Your task to perform on an android device: turn off smart reply in the gmail app Image 0: 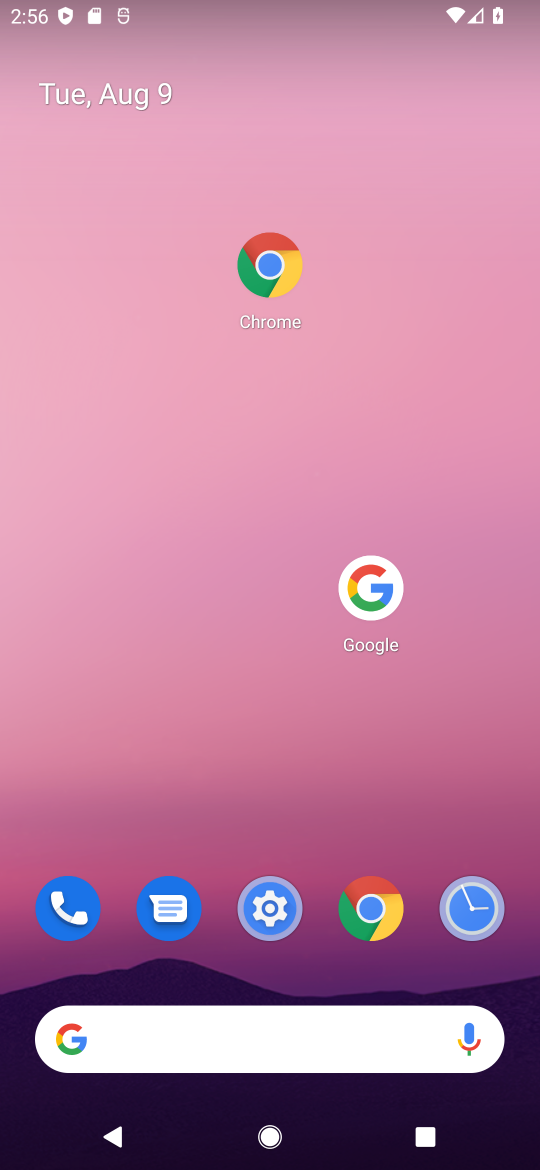
Step 0: drag from (304, 380) to (300, 326)
Your task to perform on an android device: turn off smart reply in the gmail app Image 1: 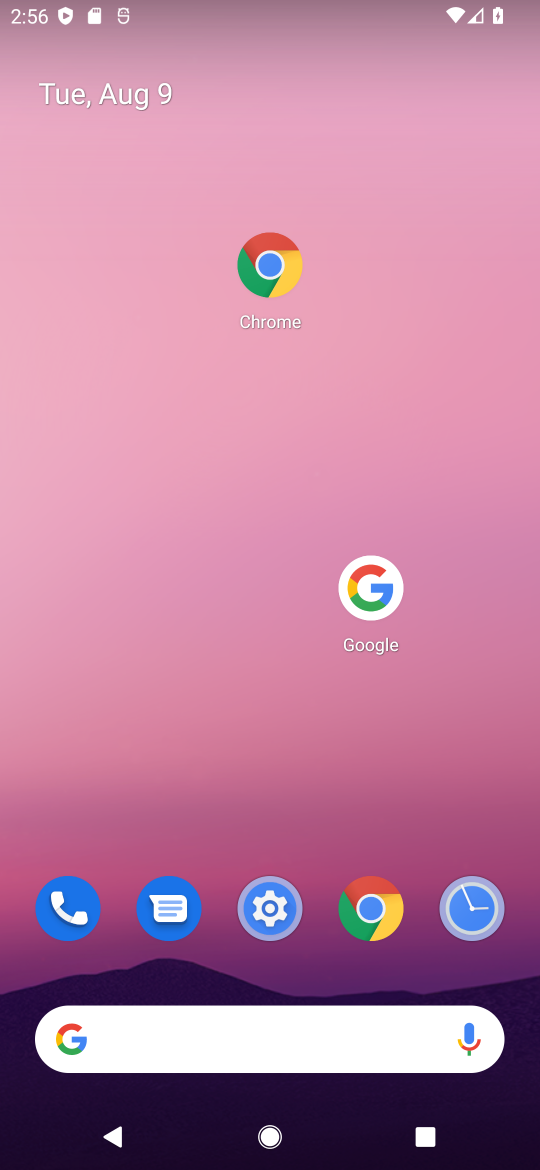
Step 1: click (310, 188)
Your task to perform on an android device: turn off smart reply in the gmail app Image 2: 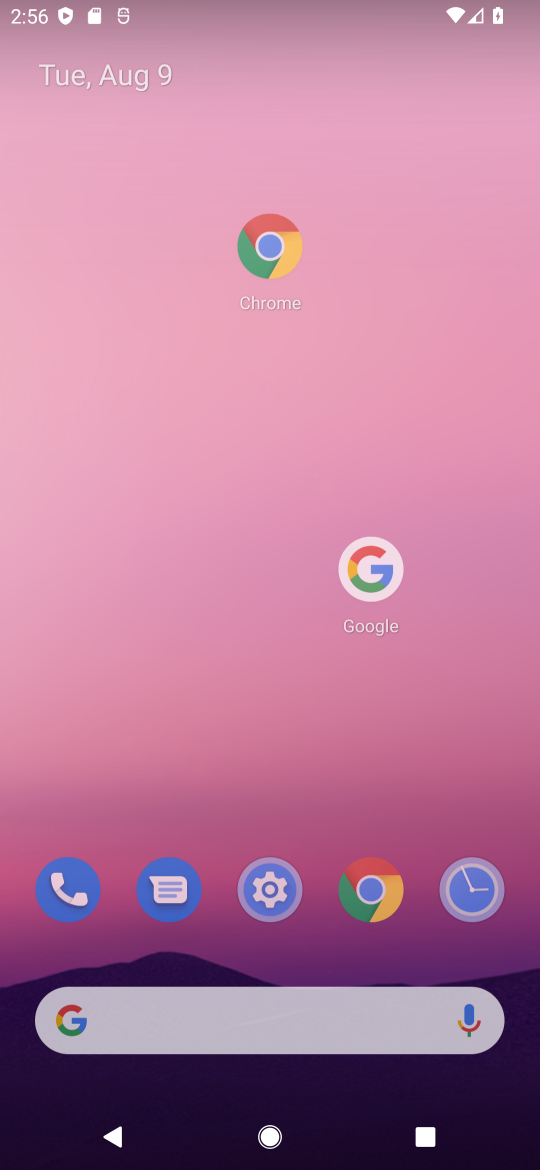
Step 2: drag from (303, 666) to (329, 449)
Your task to perform on an android device: turn off smart reply in the gmail app Image 3: 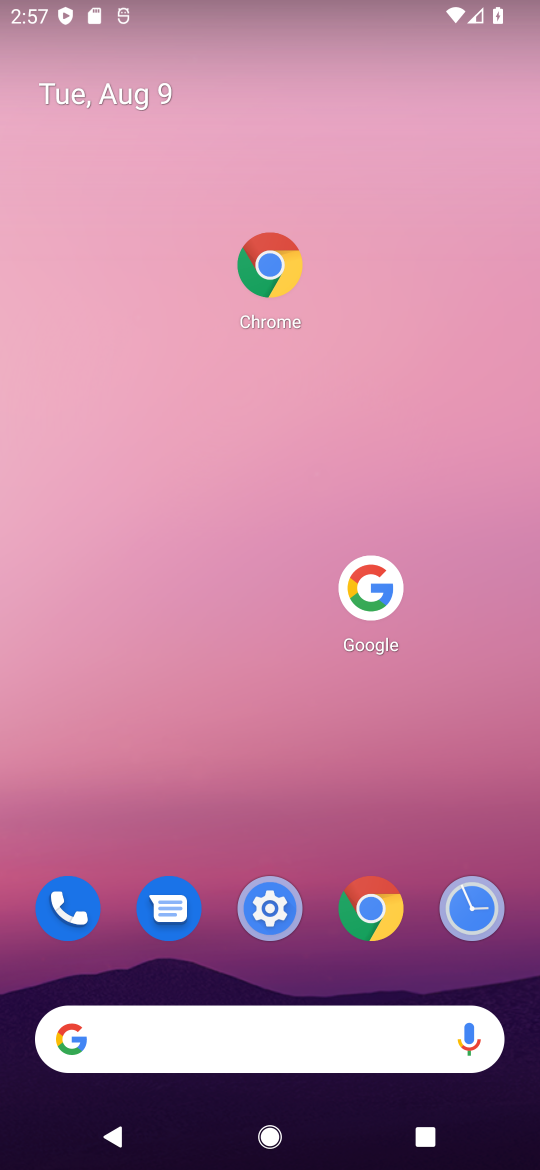
Step 3: click (310, 470)
Your task to perform on an android device: turn off smart reply in the gmail app Image 4: 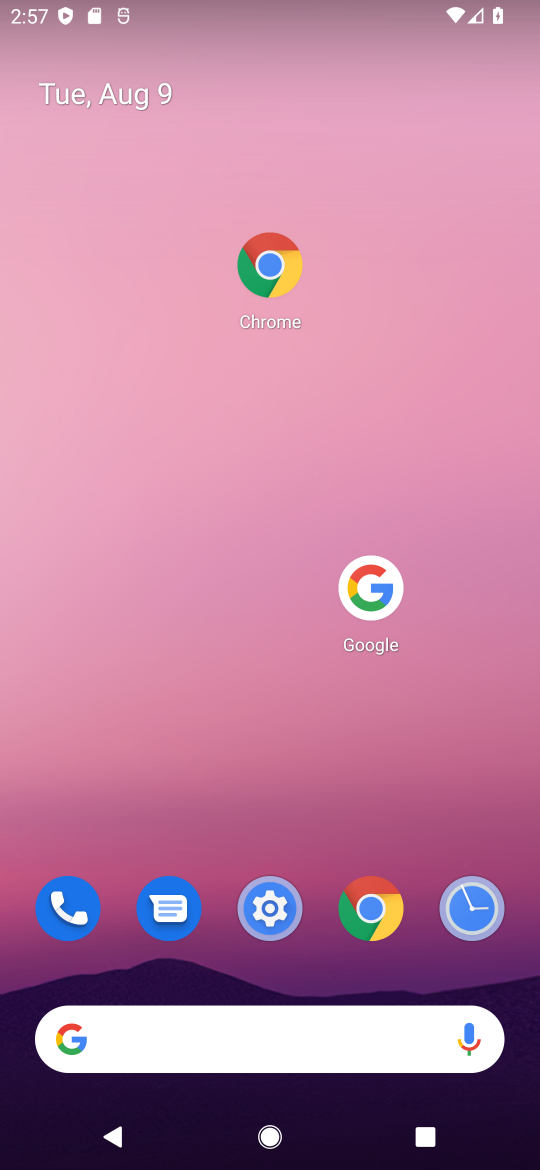
Step 4: drag from (333, 1034) to (324, 250)
Your task to perform on an android device: turn off smart reply in the gmail app Image 5: 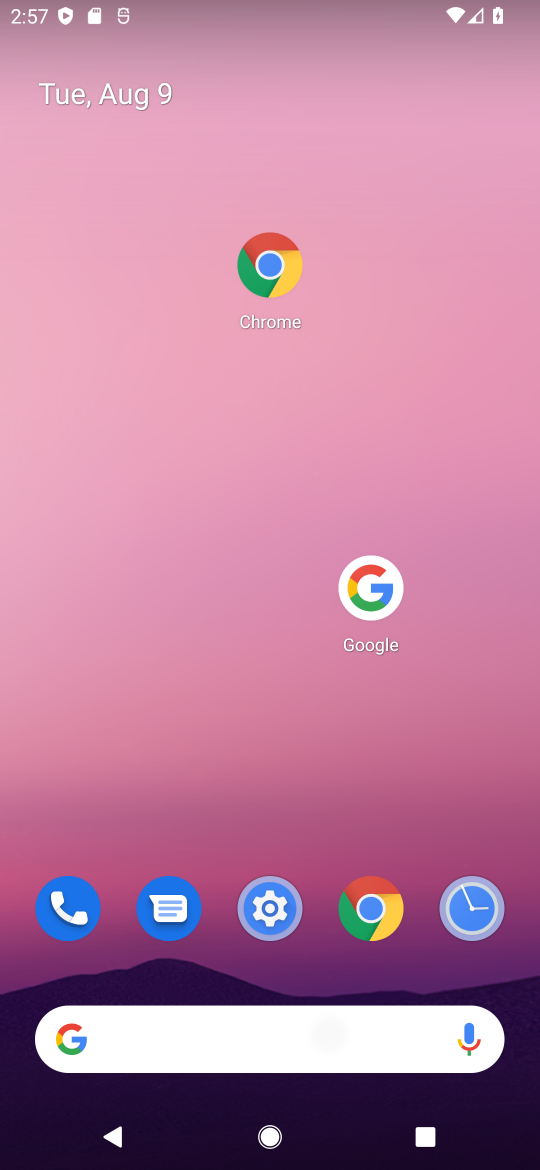
Step 5: drag from (351, 213) to (343, 374)
Your task to perform on an android device: turn off smart reply in the gmail app Image 6: 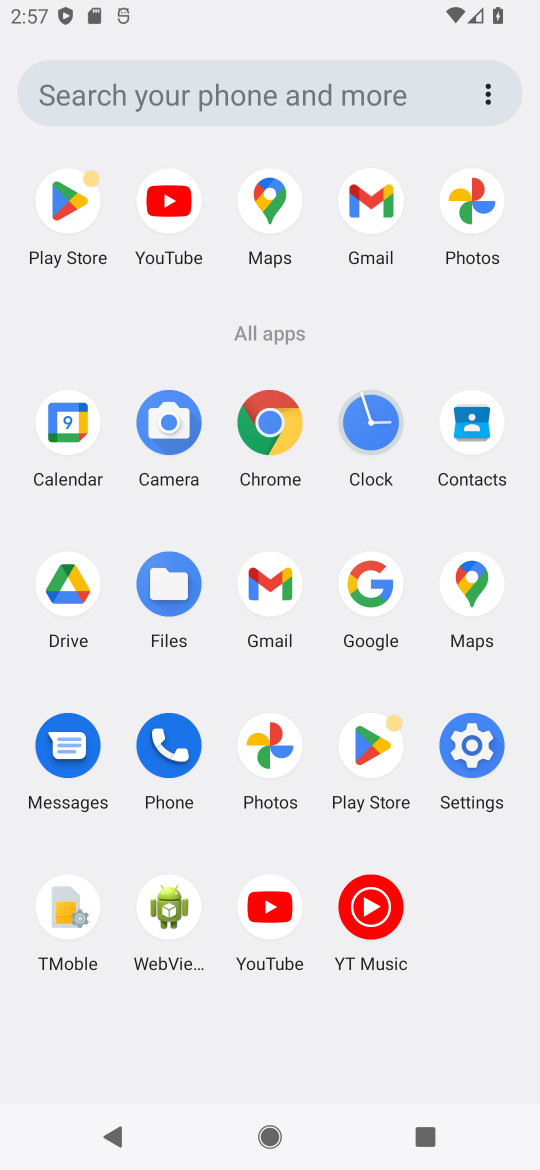
Step 6: drag from (287, 951) to (209, 413)
Your task to perform on an android device: turn off smart reply in the gmail app Image 7: 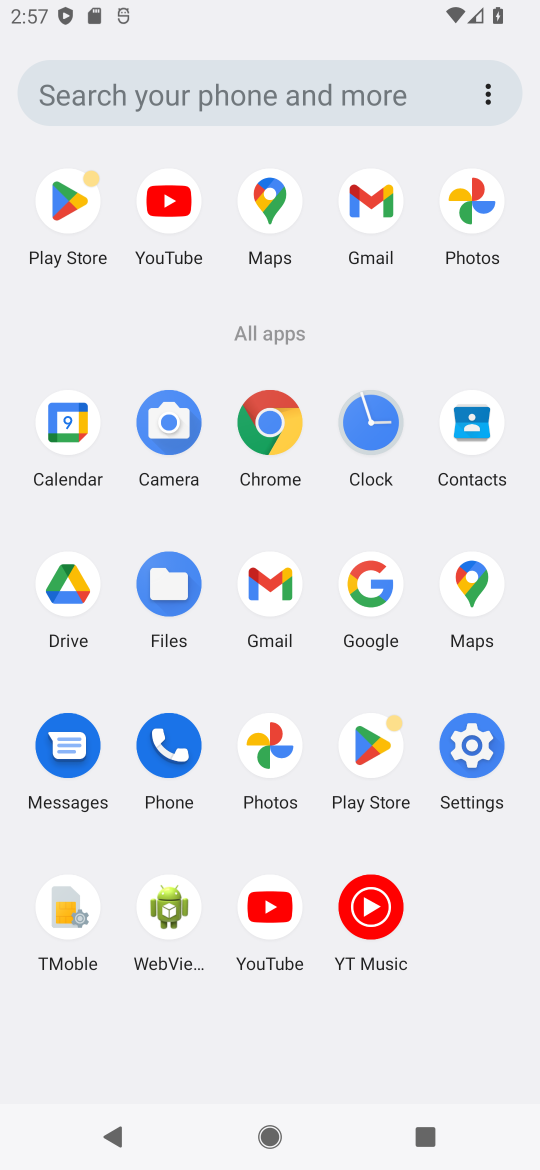
Step 7: click (280, 593)
Your task to perform on an android device: turn off smart reply in the gmail app Image 8: 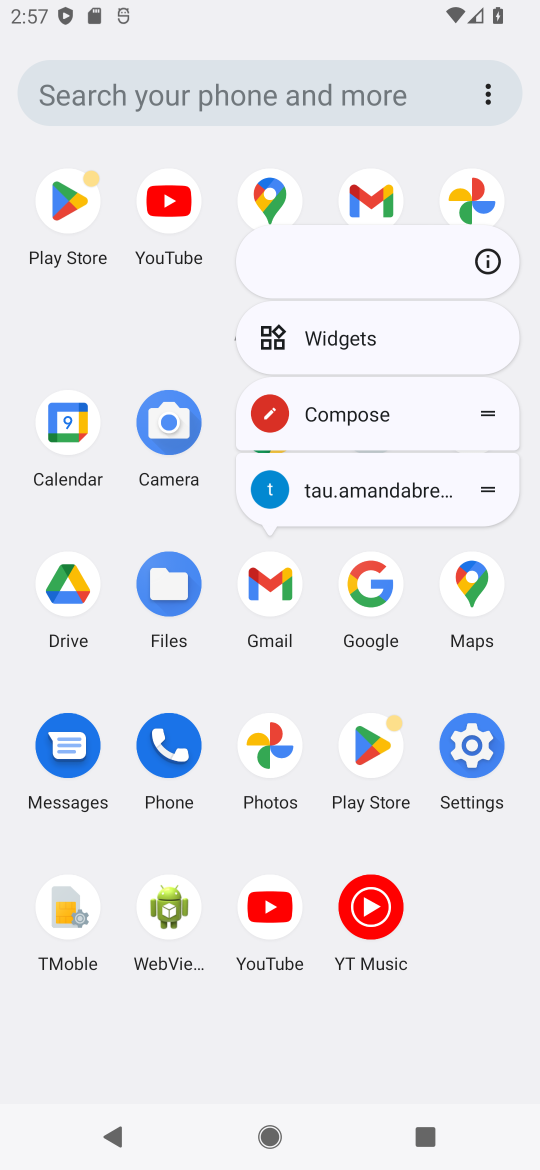
Step 8: click (261, 586)
Your task to perform on an android device: turn off smart reply in the gmail app Image 9: 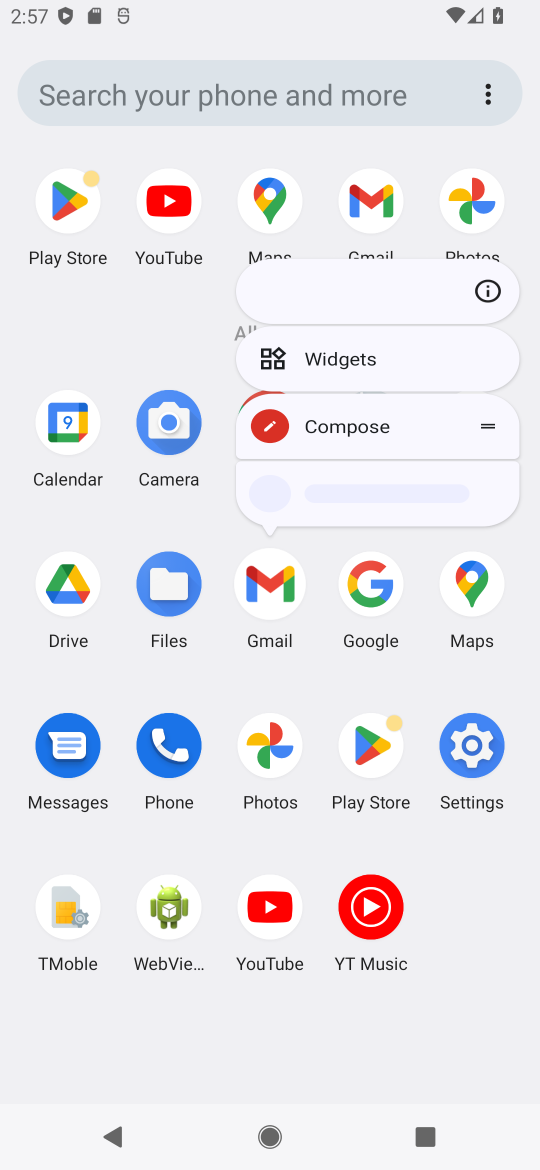
Step 9: click (261, 586)
Your task to perform on an android device: turn off smart reply in the gmail app Image 10: 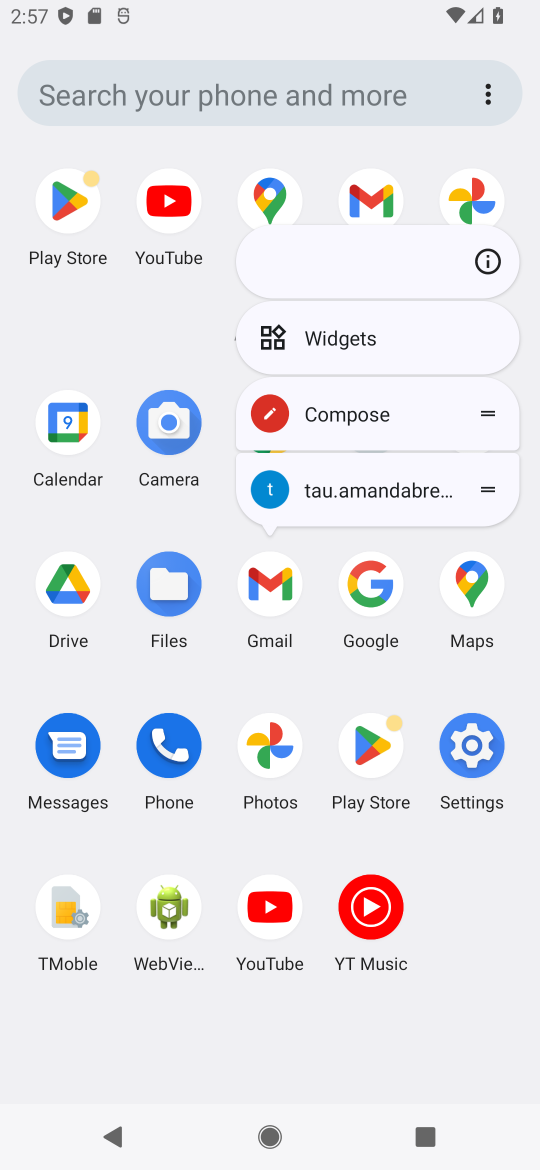
Step 10: click (342, 494)
Your task to perform on an android device: turn off smart reply in the gmail app Image 11: 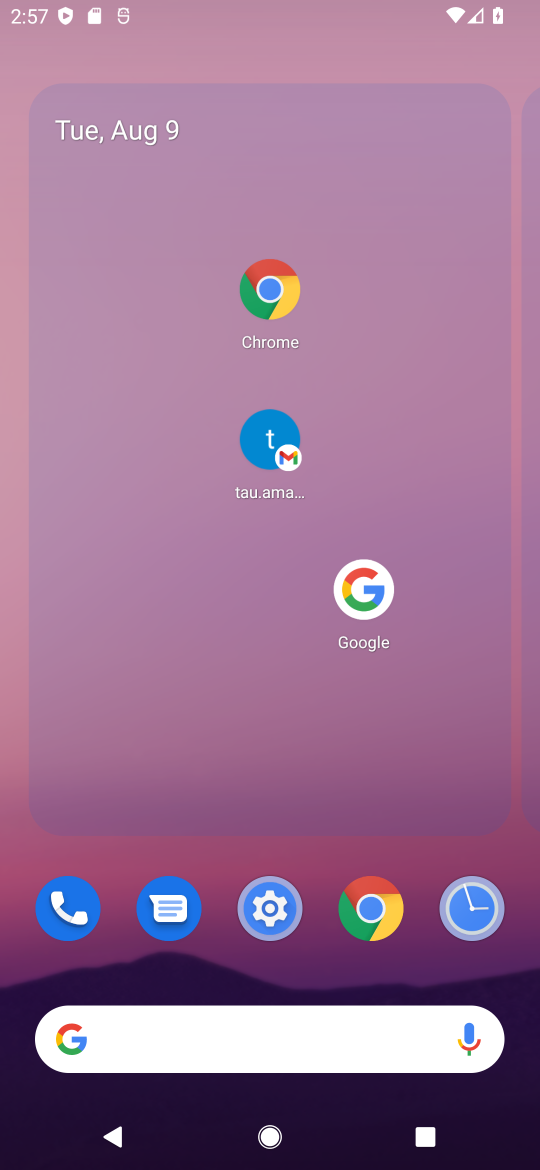
Step 11: click (447, 61)
Your task to perform on an android device: turn off smart reply in the gmail app Image 12: 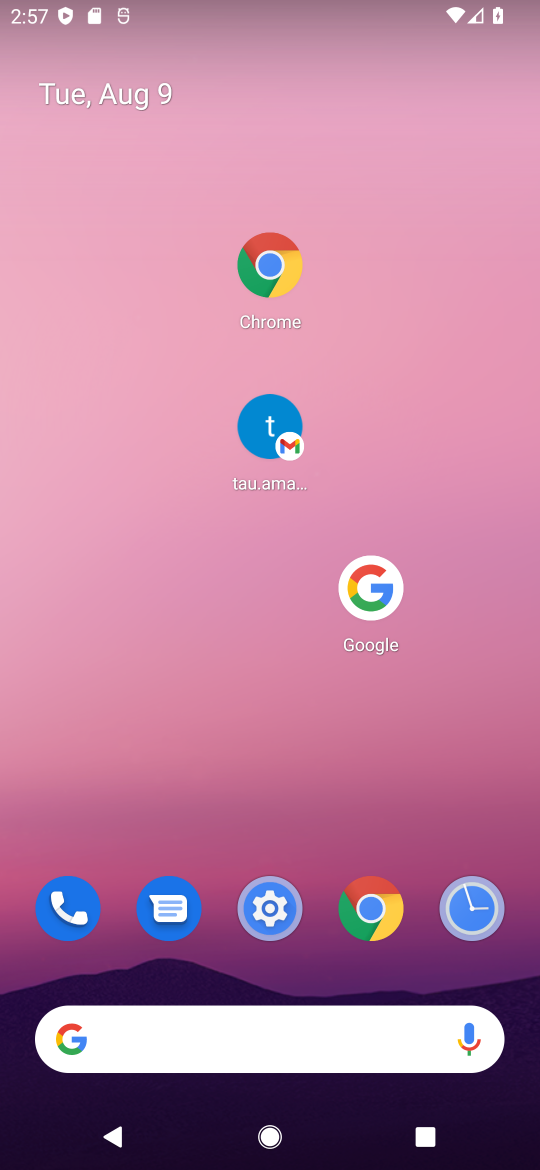
Step 12: drag from (394, 929) to (298, 190)
Your task to perform on an android device: turn off smart reply in the gmail app Image 13: 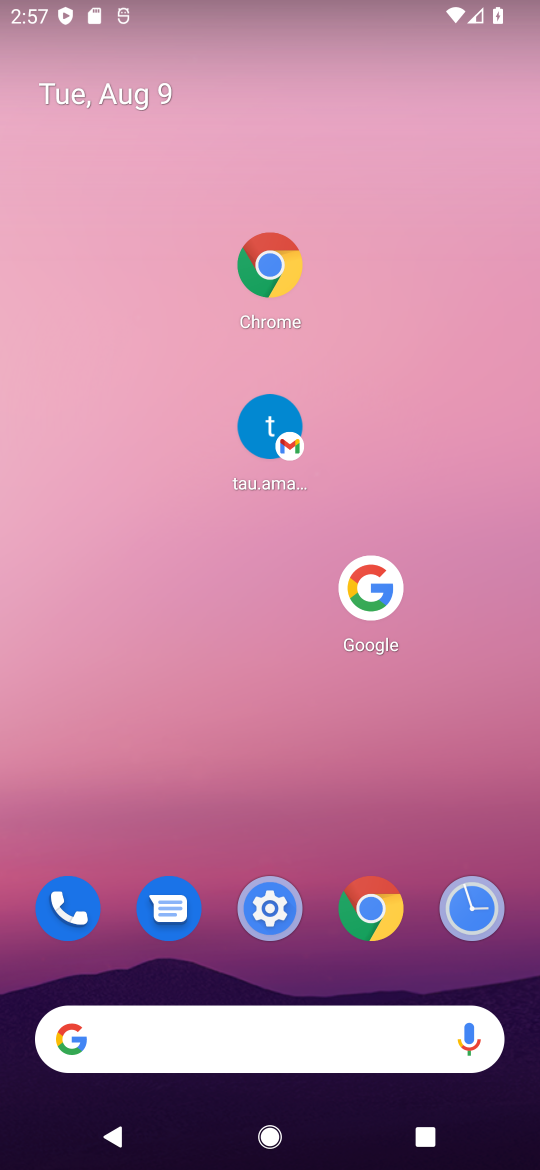
Step 13: click (250, 377)
Your task to perform on an android device: turn off smart reply in the gmail app Image 14: 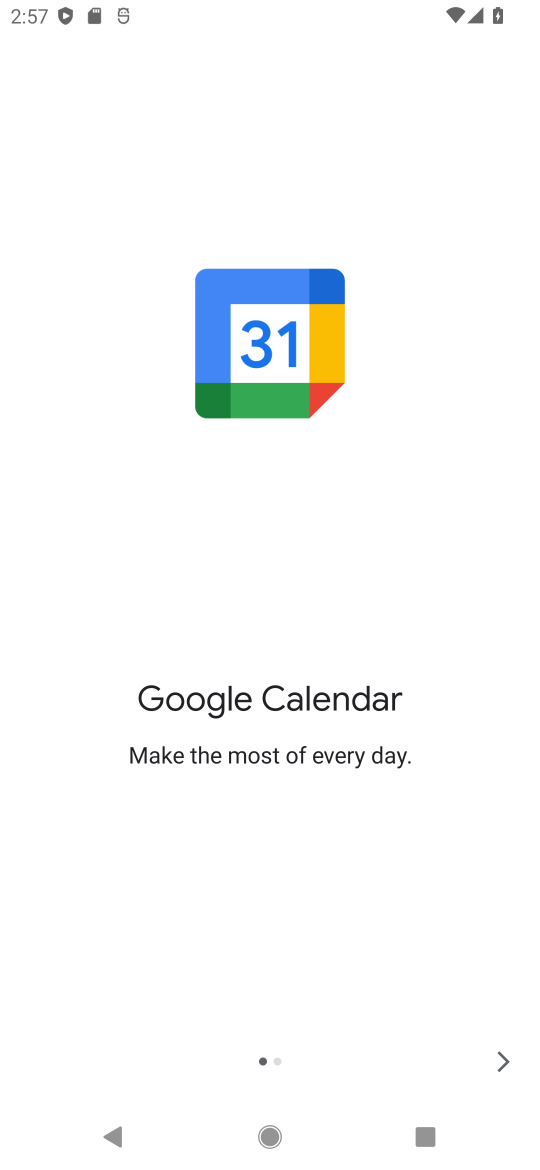
Step 14: press back button
Your task to perform on an android device: turn off smart reply in the gmail app Image 15: 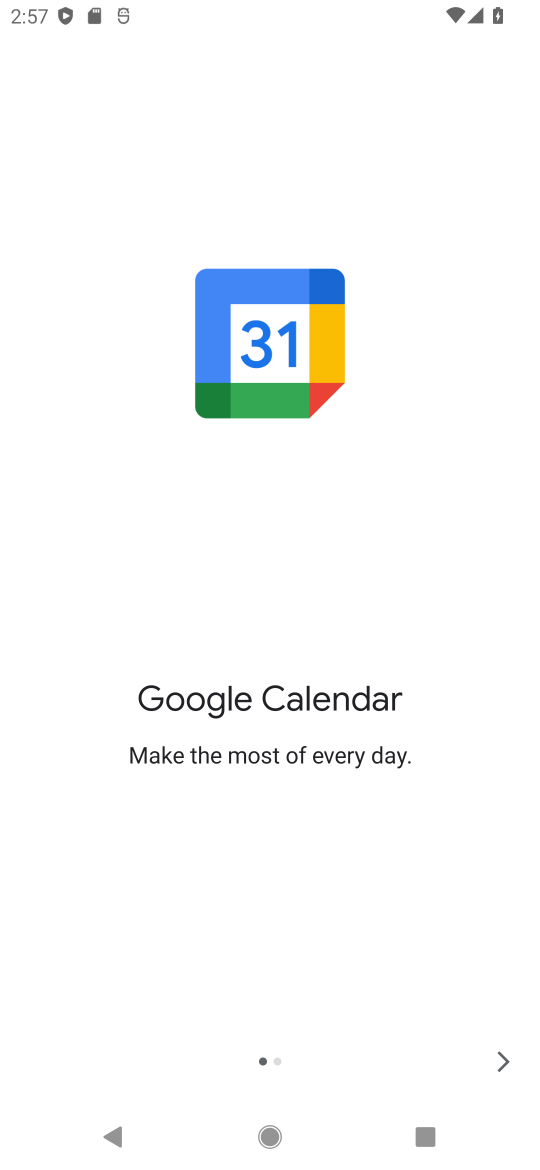
Step 15: press back button
Your task to perform on an android device: turn off smart reply in the gmail app Image 16: 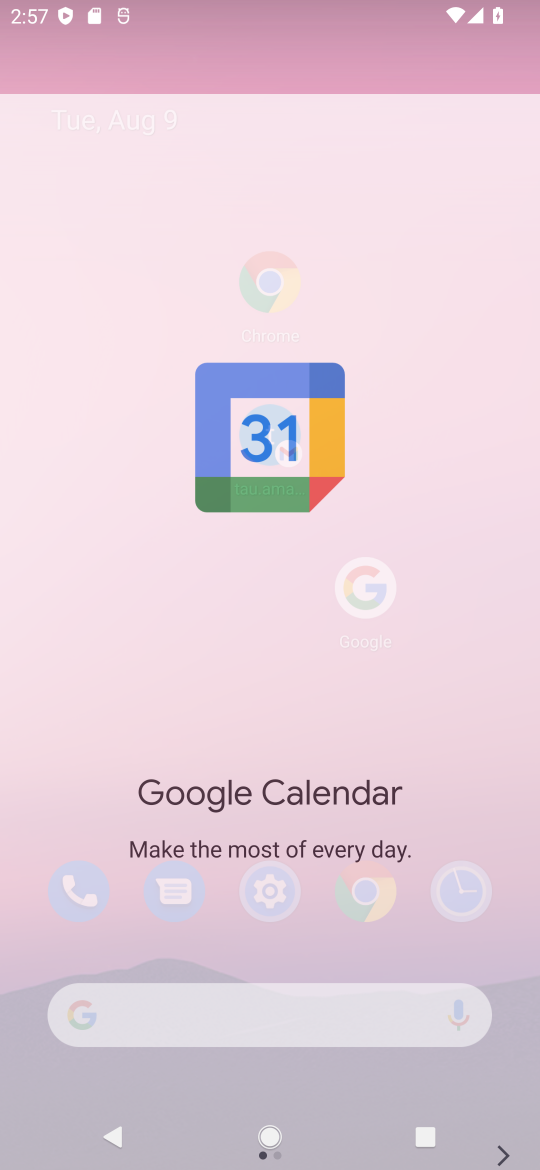
Step 16: press back button
Your task to perform on an android device: turn off smart reply in the gmail app Image 17: 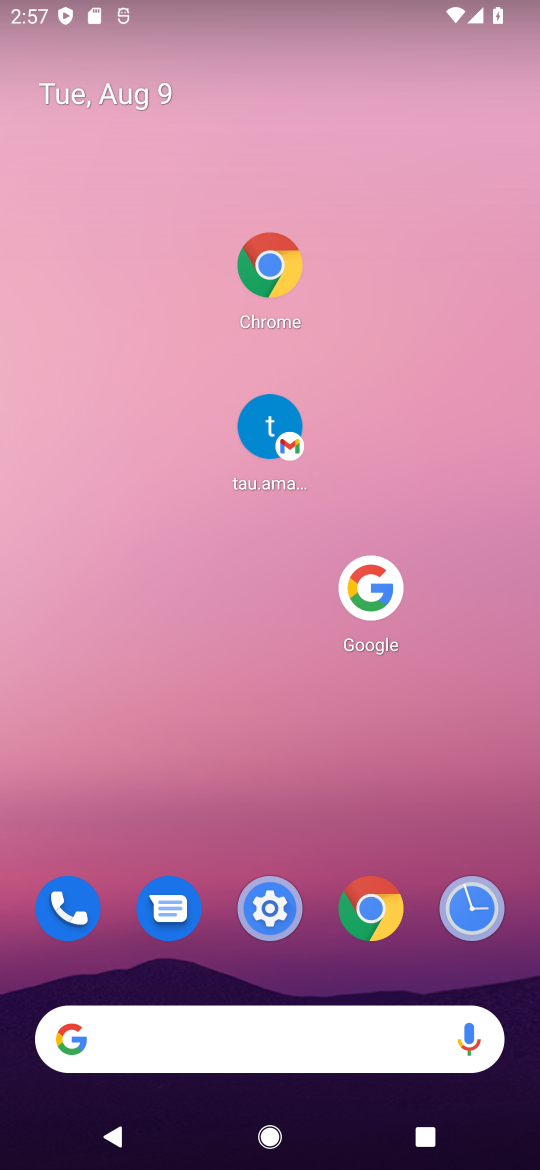
Step 17: press back button
Your task to perform on an android device: turn off smart reply in the gmail app Image 18: 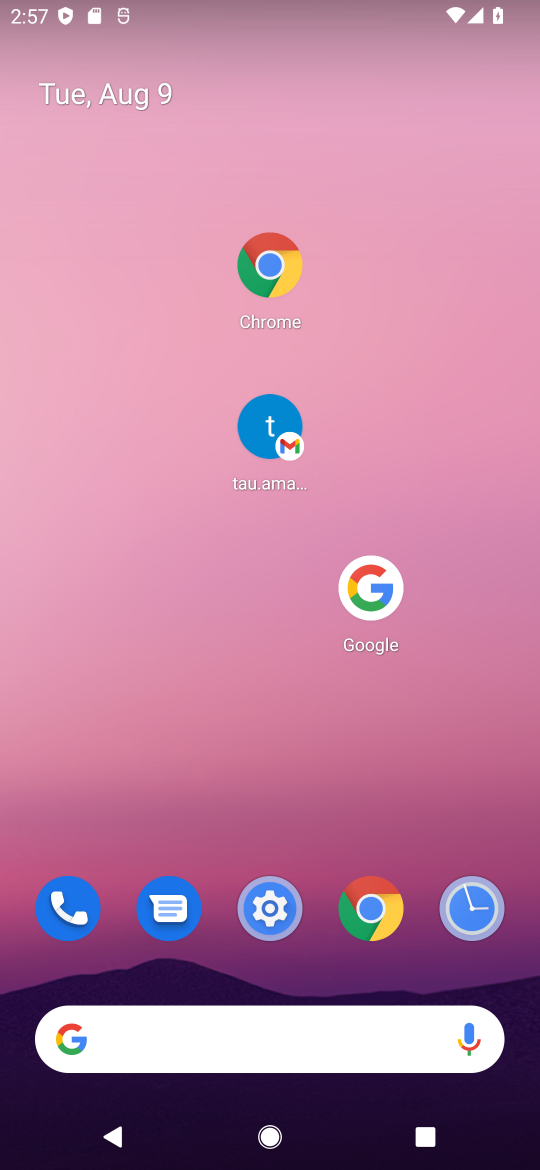
Step 18: press back button
Your task to perform on an android device: turn off smart reply in the gmail app Image 19: 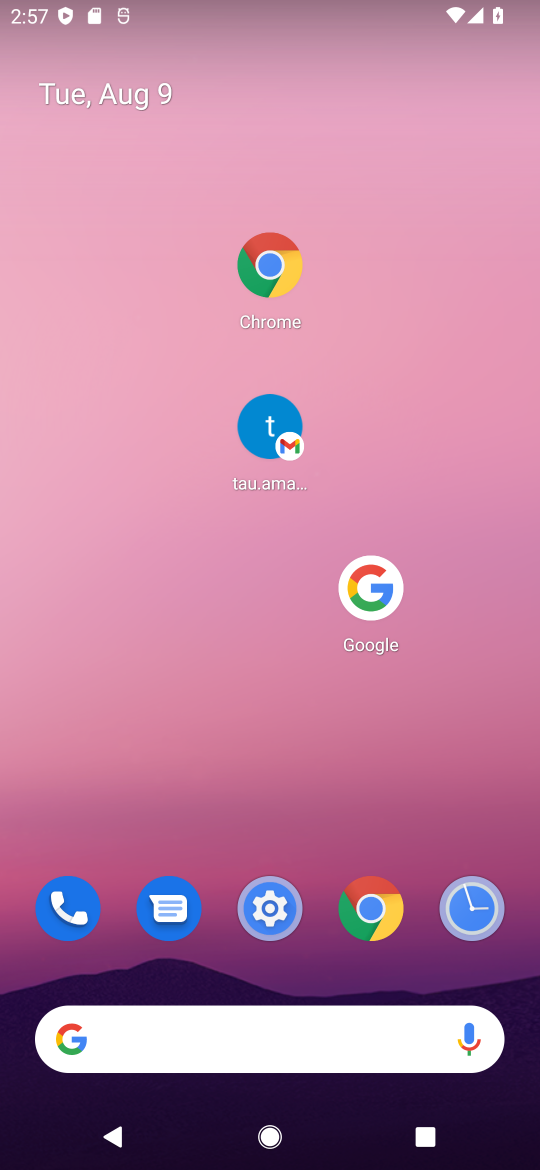
Step 19: drag from (332, 1084) to (386, 406)
Your task to perform on an android device: turn off smart reply in the gmail app Image 20: 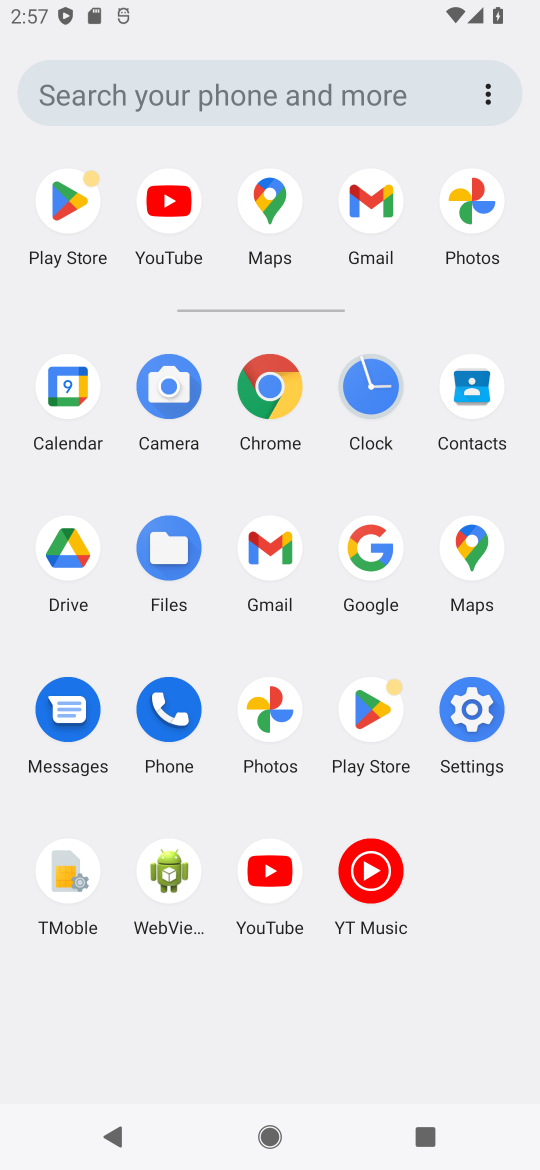
Step 20: click (256, 538)
Your task to perform on an android device: turn off smart reply in the gmail app Image 21: 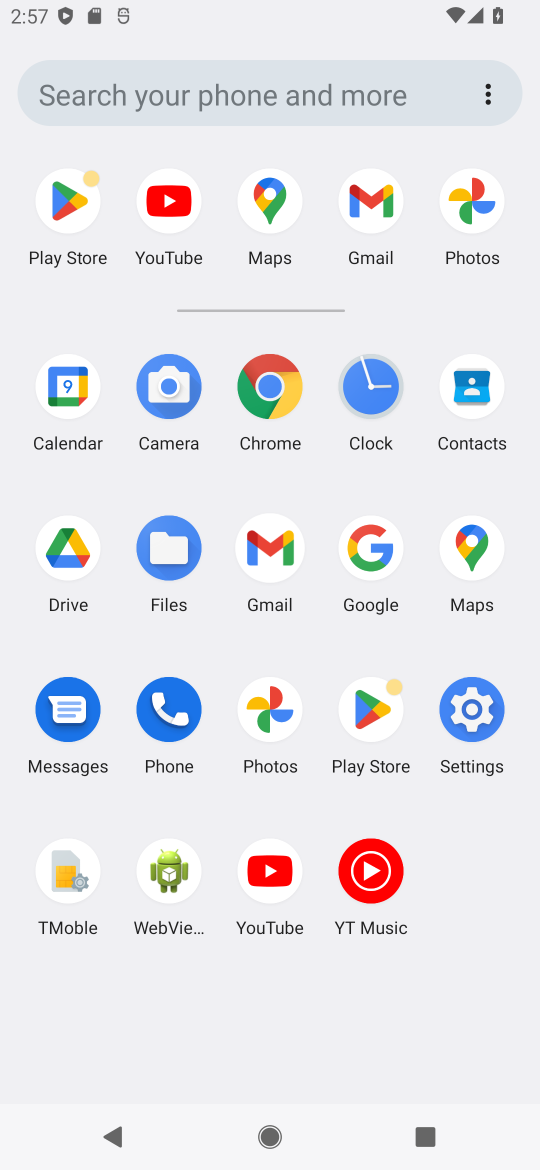
Step 21: click (258, 536)
Your task to perform on an android device: turn off smart reply in the gmail app Image 22: 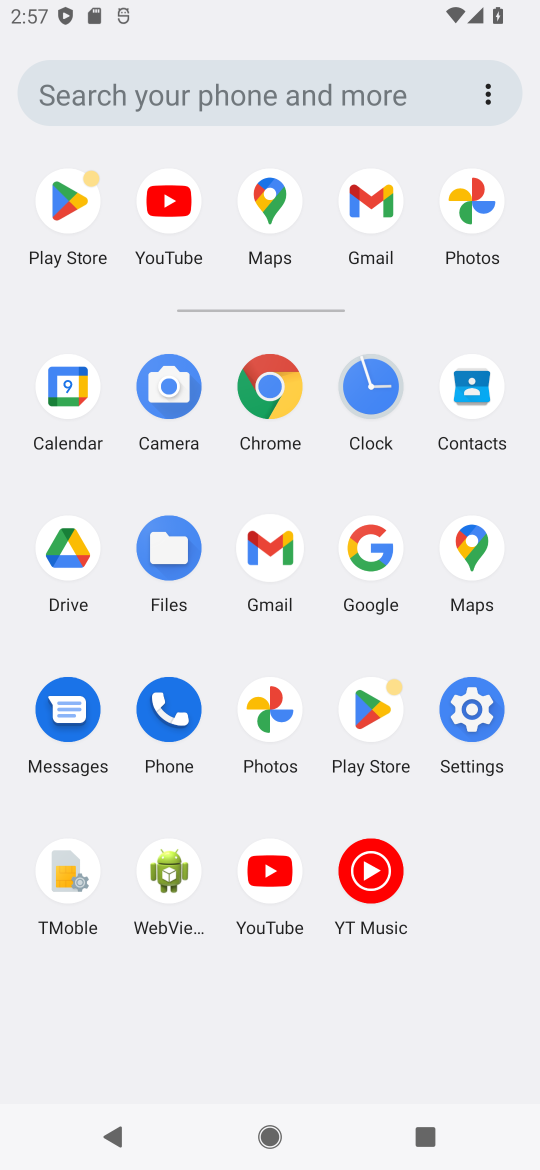
Step 22: click (264, 546)
Your task to perform on an android device: turn off smart reply in the gmail app Image 23: 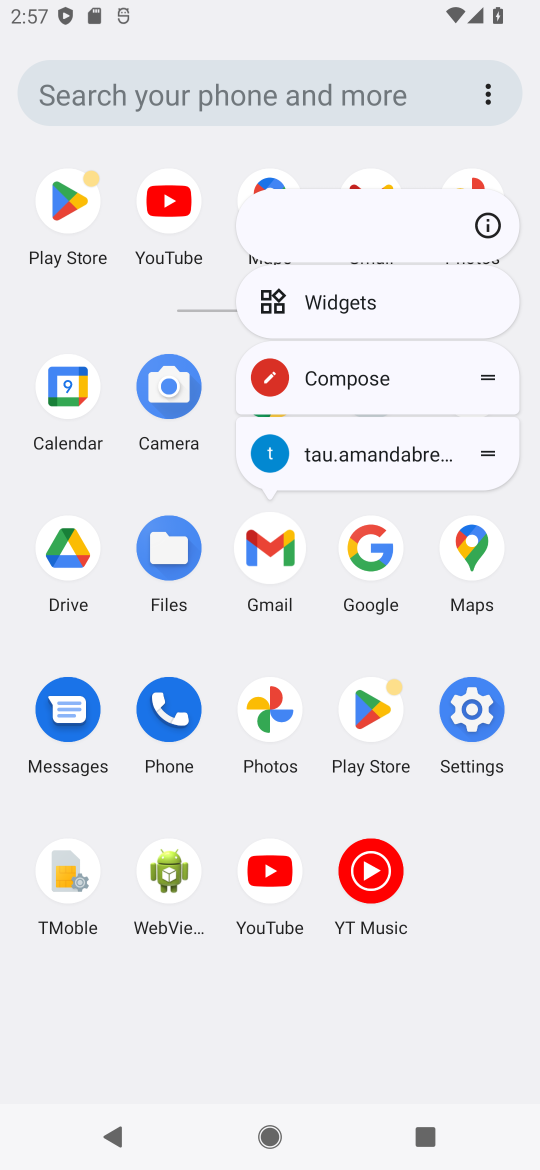
Step 23: click (266, 549)
Your task to perform on an android device: turn off smart reply in the gmail app Image 24: 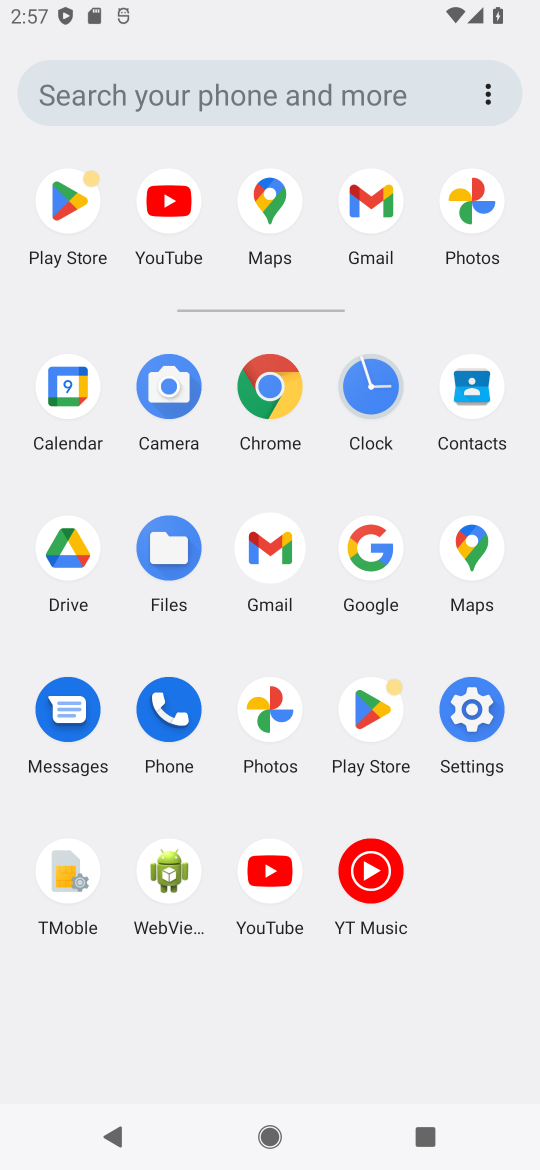
Step 24: click (376, 464)
Your task to perform on an android device: turn off smart reply in the gmail app Image 25: 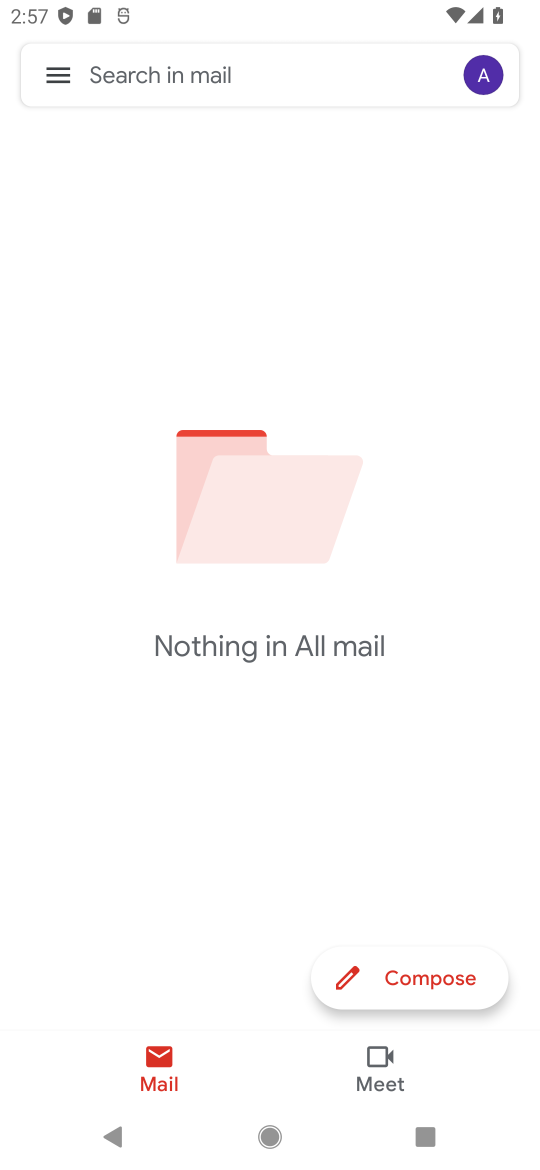
Step 25: click (74, 79)
Your task to perform on an android device: turn off smart reply in the gmail app Image 26: 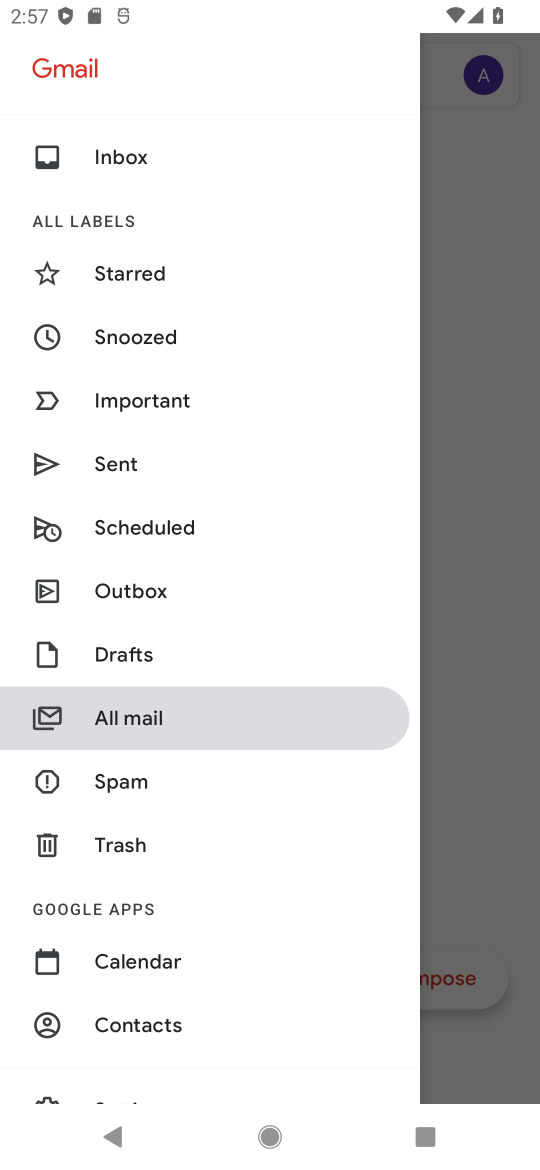
Step 26: drag from (151, 960) to (211, 450)
Your task to perform on an android device: turn off smart reply in the gmail app Image 27: 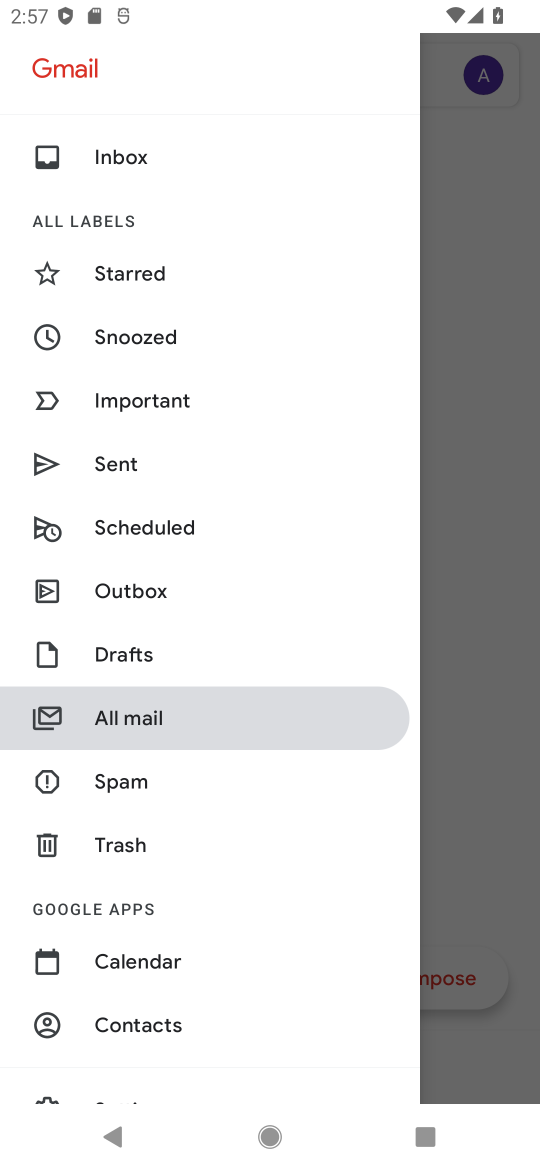
Step 27: drag from (233, 1024) to (233, 330)
Your task to perform on an android device: turn off smart reply in the gmail app Image 28: 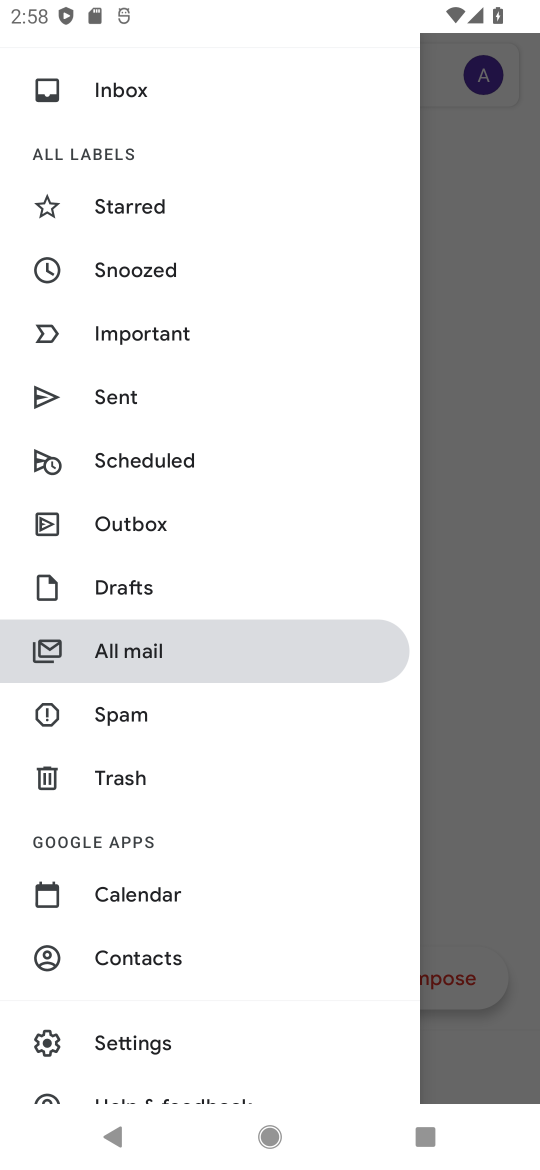
Step 28: drag from (284, 657) to (285, 198)
Your task to perform on an android device: turn off smart reply in the gmail app Image 29: 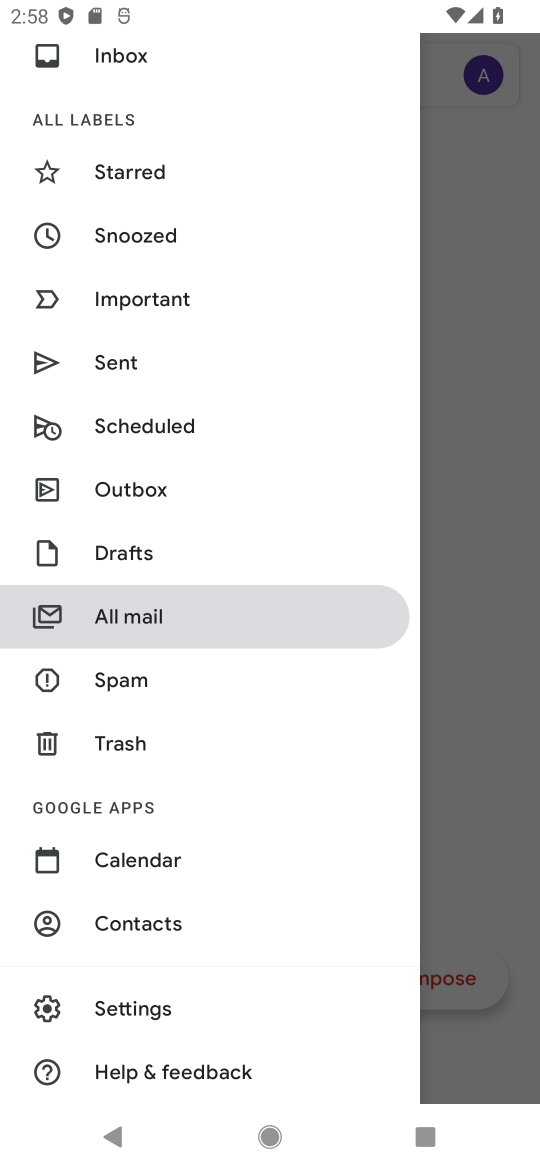
Step 29: click (119, 997)
Your task to perform on an android device: turn off smart reply in the gmail app Image 30: 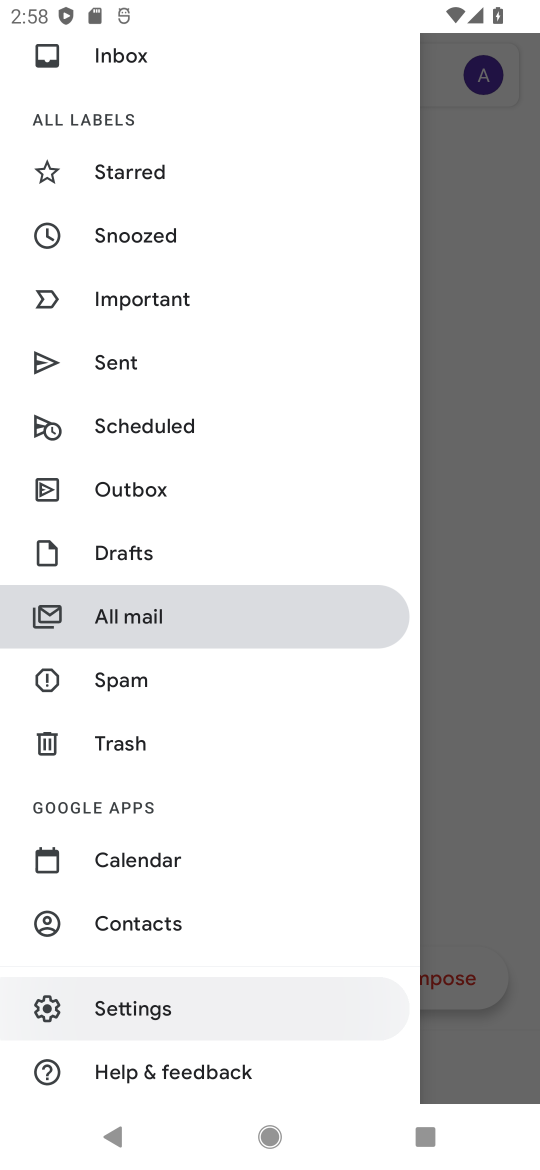
Step 30: click (126, 1010)
Your task to perform on an android device: turn off smart reply in the gmail app Image 31: 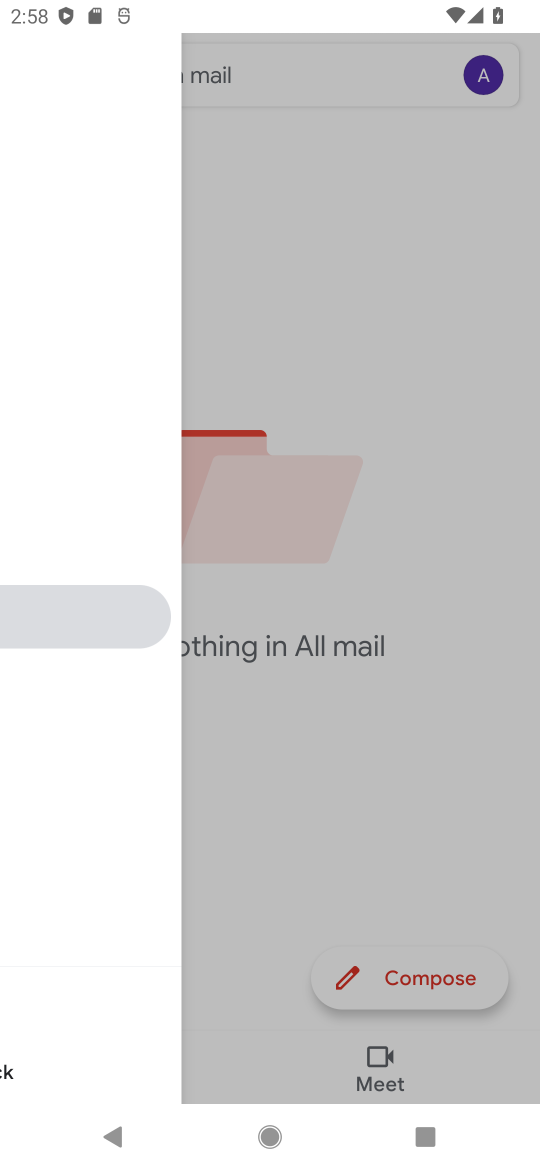
Step 31: click (134, 1007)
Your task to perform on an android device: turn off smart reply in the gmail app Image 32: 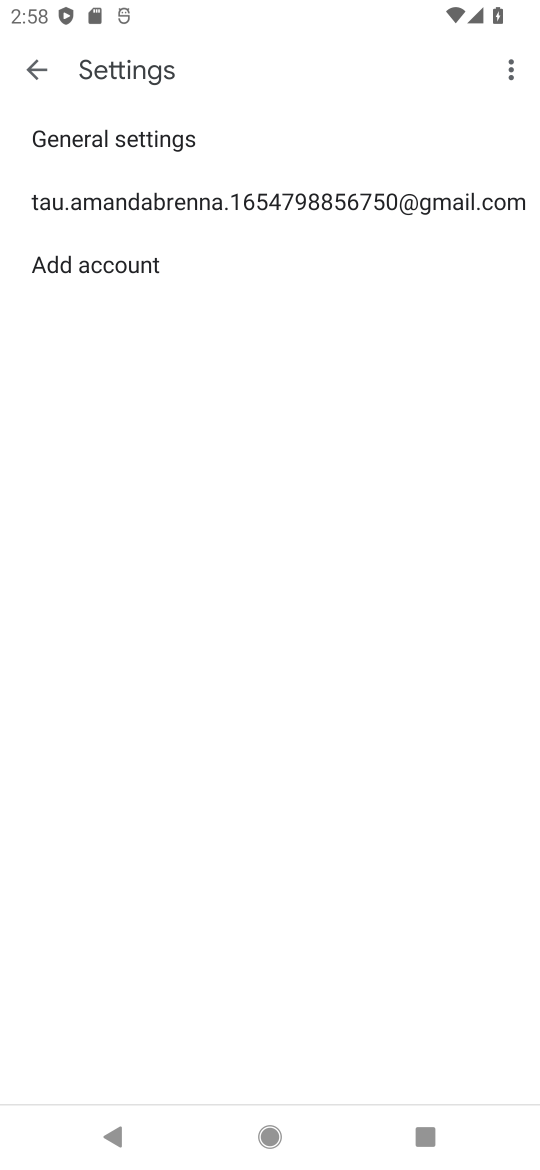
Step 32: click (164, 199)
Your task to perform on an android device: turn off smart reply in the gmail app Image 33: 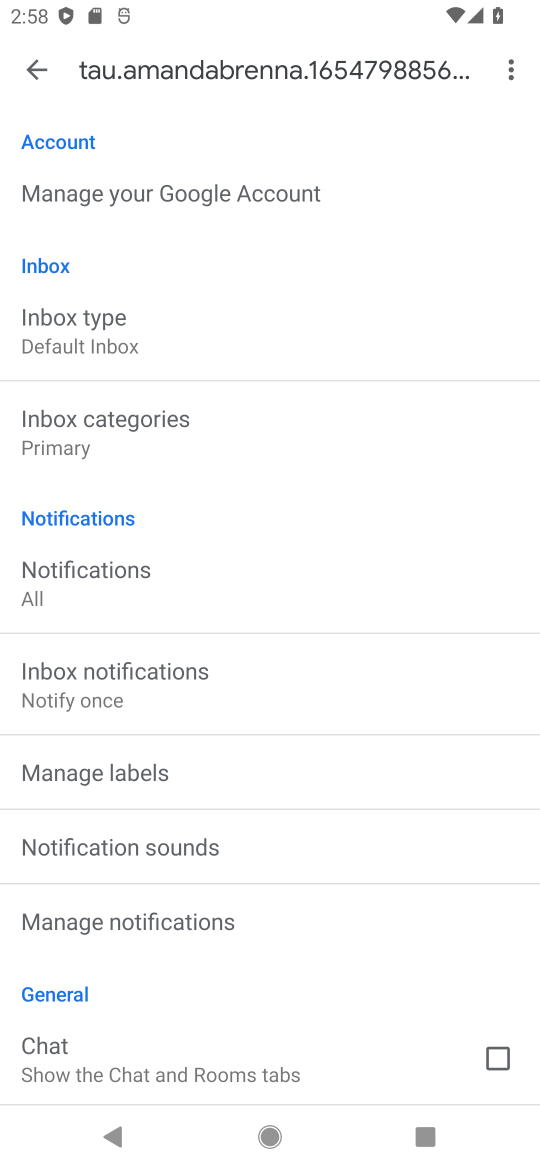
Step 33: task complete